Your task to perform on an android device: Search for the best rated coffee table on Target. Image 0: 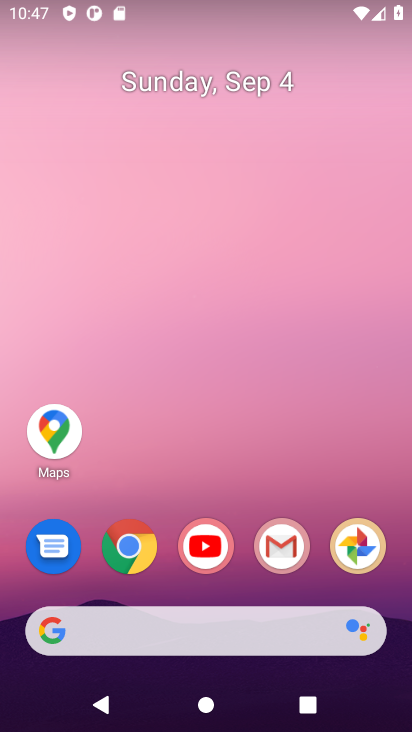
Step 0: click (128, 547)
Your task to perform on an android device: Search for the best rated coffee table on Target. Image 1: 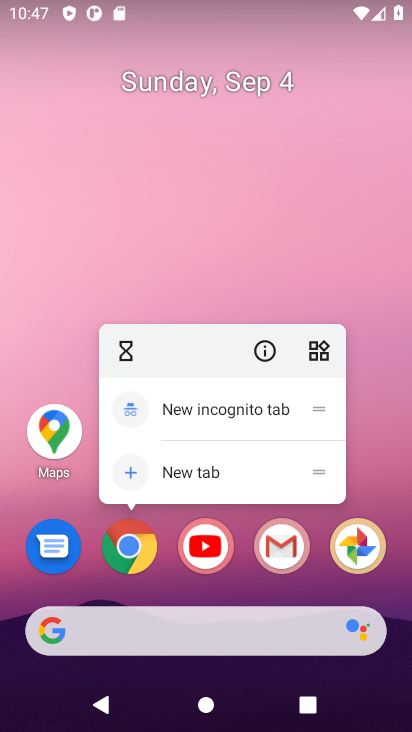
Step 1: click (128, 547)
Your task to perform on an android device: Search for the best rated coffee table on Target. Image 2: 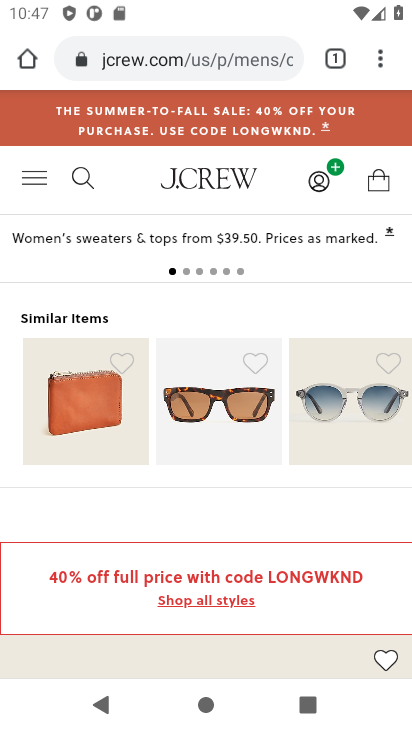
Step 2: click (163, 64)
Your task to perform on an android device: Search for the best rated coffee table on Target. Image 3: 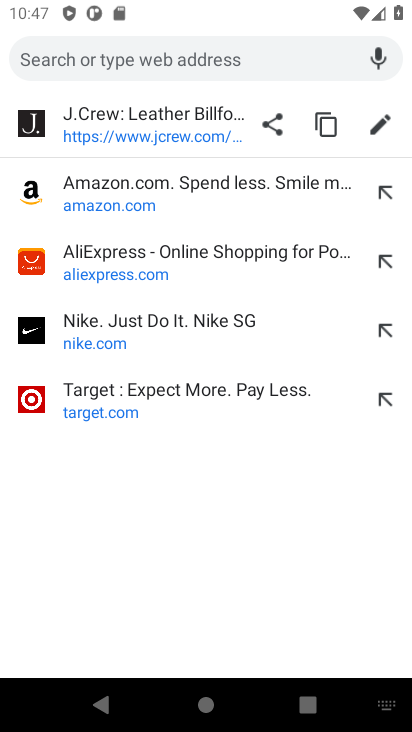
Step 3: type "Target."
Your task to perform on an android device: Search for the best rated coffee table on Target. Image 4: 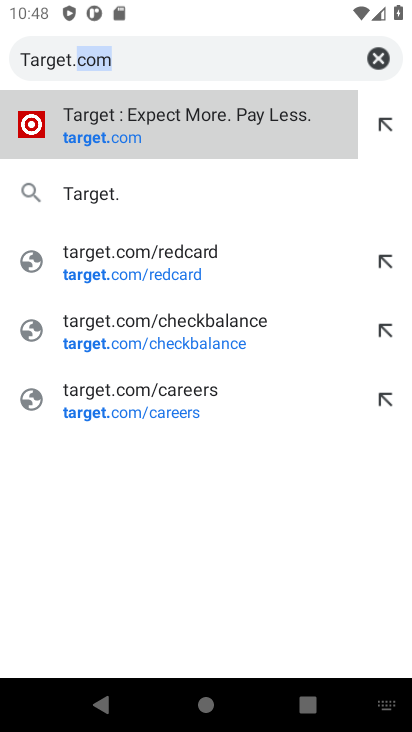
Step 4: click (119, 143)
Your task to perform on an android device: Search for the best rated coffee table on Target. Image 5: 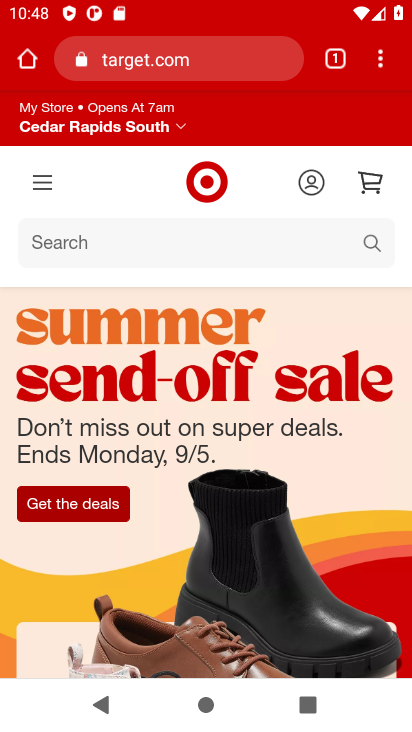
Step 5: click (361, 246)
Your task to perform on an android device: Search for the best rated coffee table on Target. Image 6: 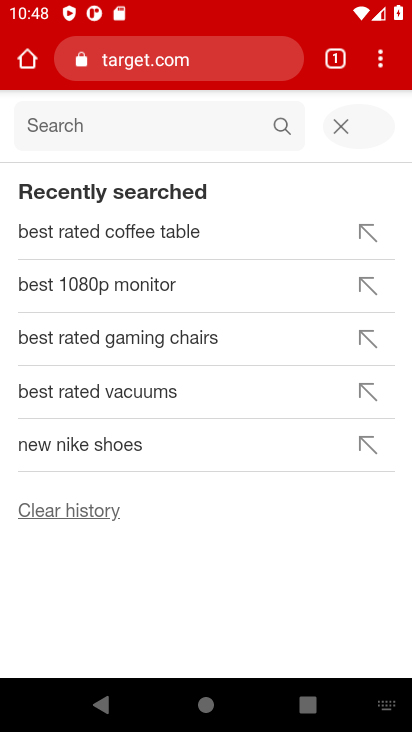
Step 6: type "best rated coffee table"
Your task to perform on an android device: Search for the best rated coffee table on Target. Image 7: 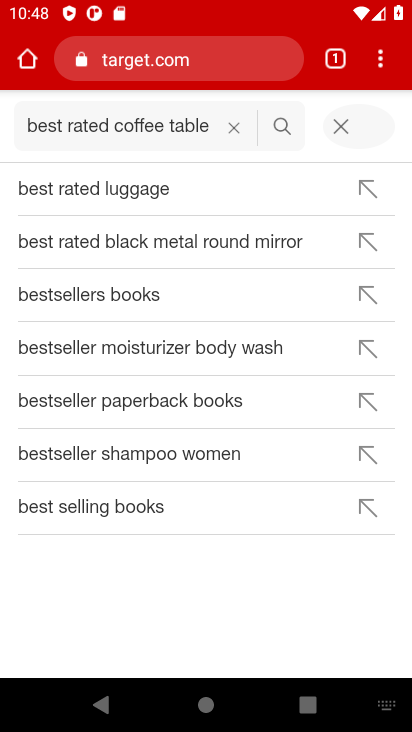
Step 7: click (283, 128)
Your task to perform on an android device: Search for the best rated coffee table on Target. Image 8: 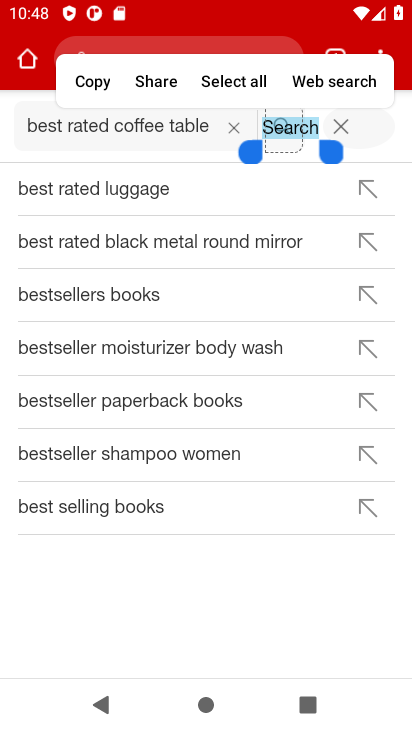
Step 8: click (281, 132)
Your task to perform on an android device: Search for the best rated coffee table on Target. Image 9: 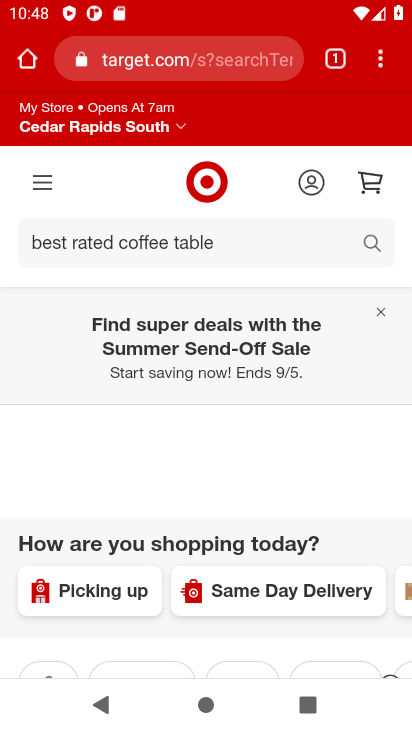
Step 9: task complete